Your task to perform on an android device: Open the calendar app, open the side menu, and click the "Day" option Image 0: 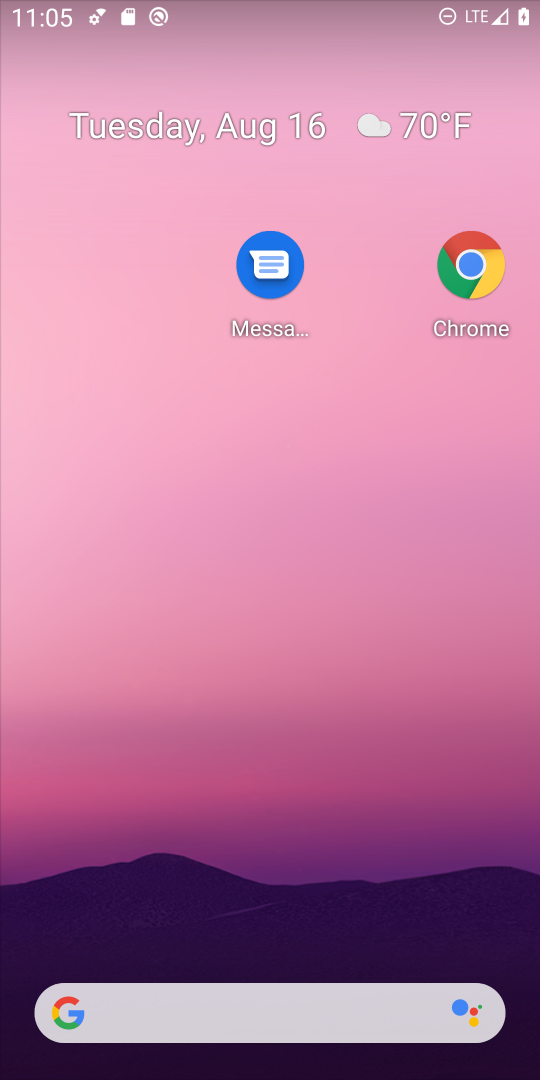
Step 0: drag from (505, 42) to (538, 337)
Your task to perform on an android device: Open the calendar app, open the side menu, and click the "Day" option Image 1: 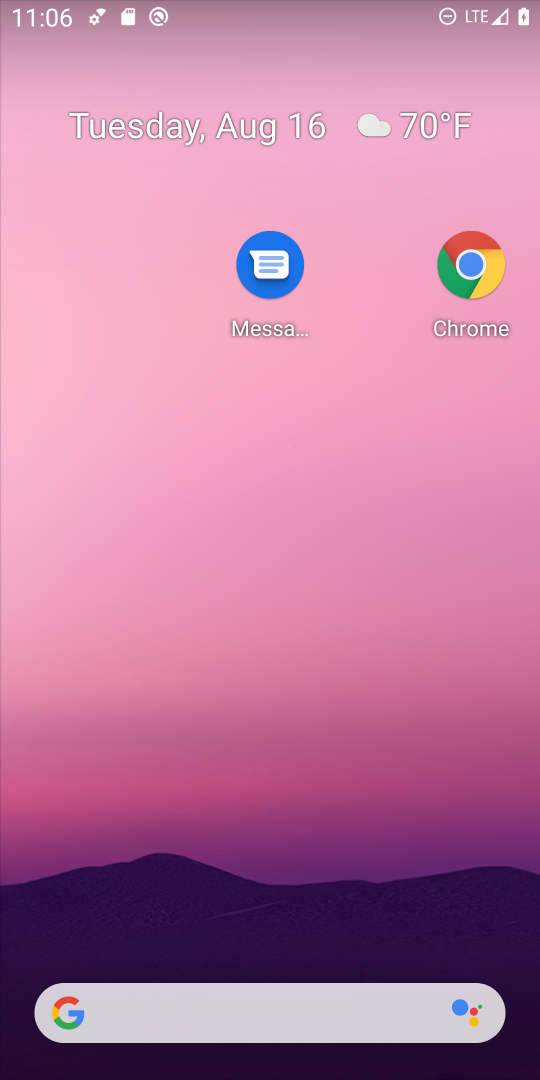
Step 1: drag from (286, 716) to (375, 148)
Your task to perform on an android device: Open the calendar app, open the side menu, and click the "Day" option Image 2: 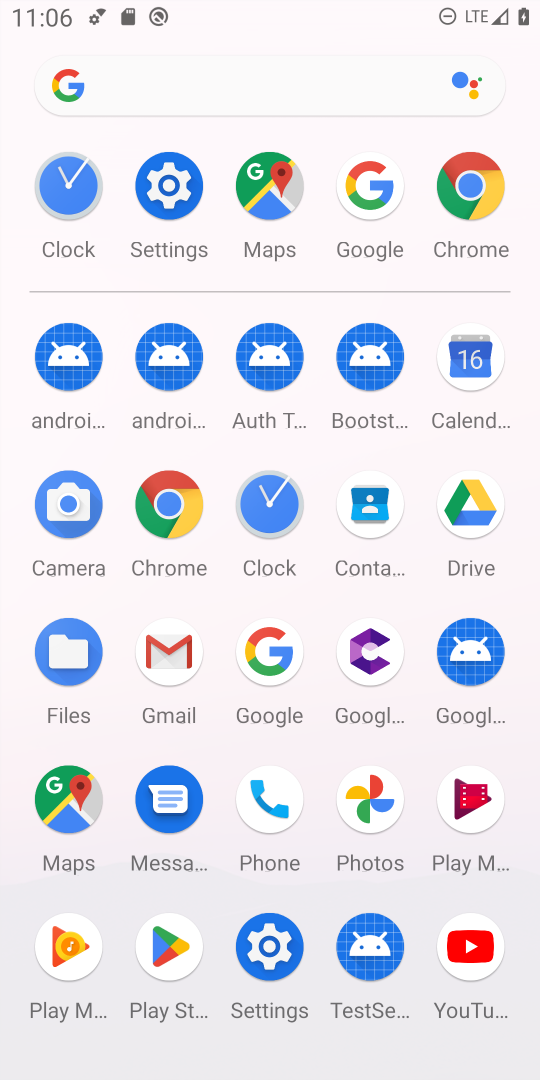
Step 2: click (474, 378)
Your task to perform on an android device: Open the calendar app, open the side menu, and click the "Day" option Image 3: 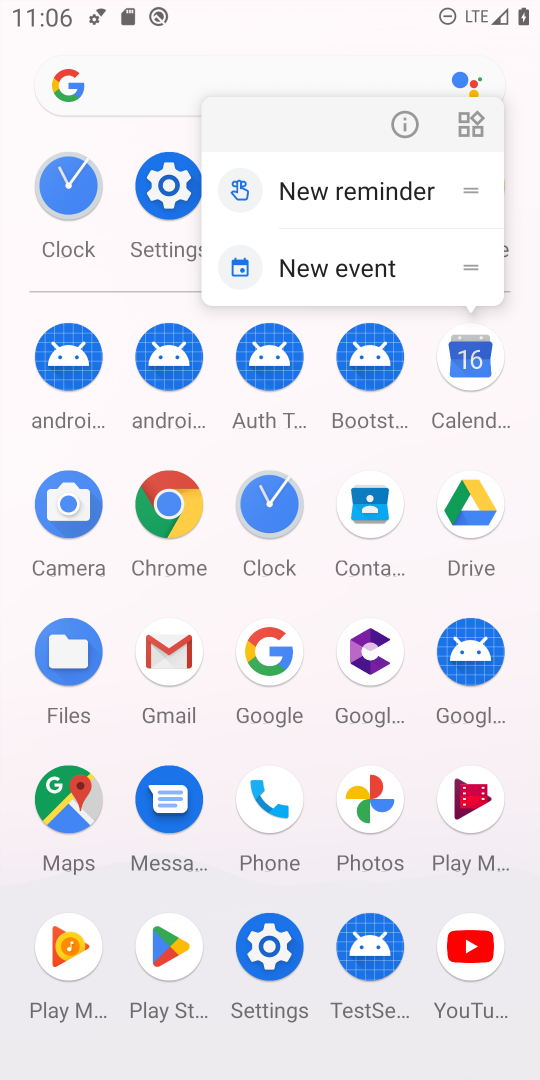
Step 3: click (478, 378)
Your task to perform on an android device: Open the calendar app, open the side menu, and click the "Day" option Image 4: 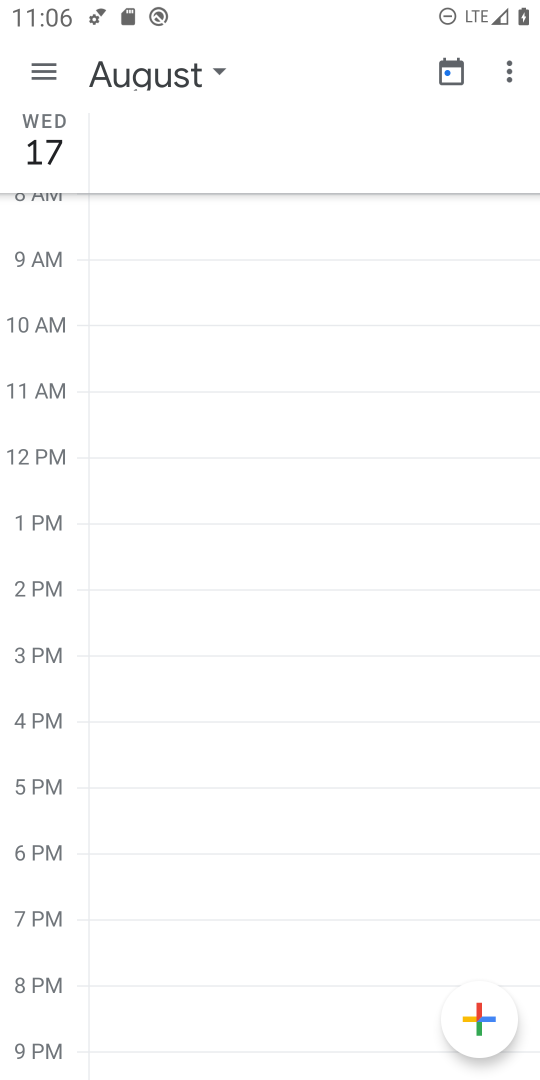
Step 4: task complete